Your task to perform on an android device: turn off smart reply in the gmail app Image 0: 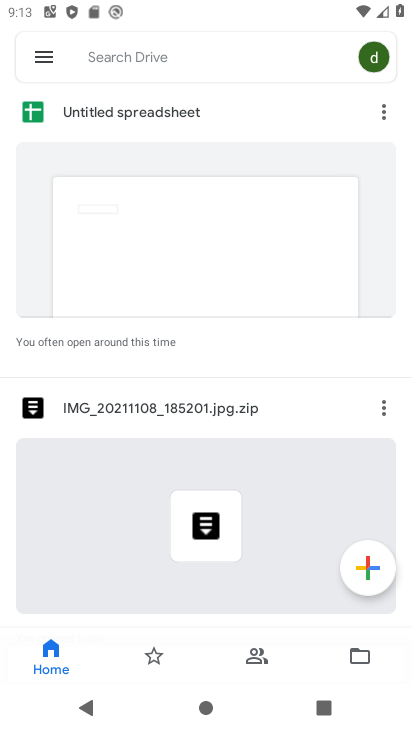
Step 0: press home button
Your task to perform on an android device: turn off smart reply in the gmail app Image 1: 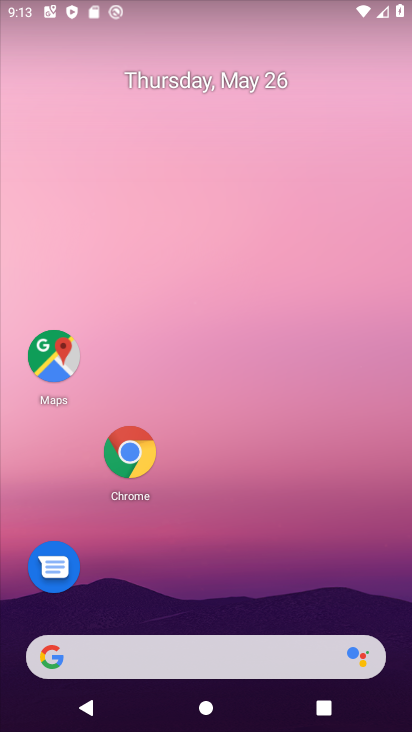
Step 1: drag from (176, 654) to (303, 175)
Your task to perform on an android device: turn off smart reply in the gmail app Image 2: 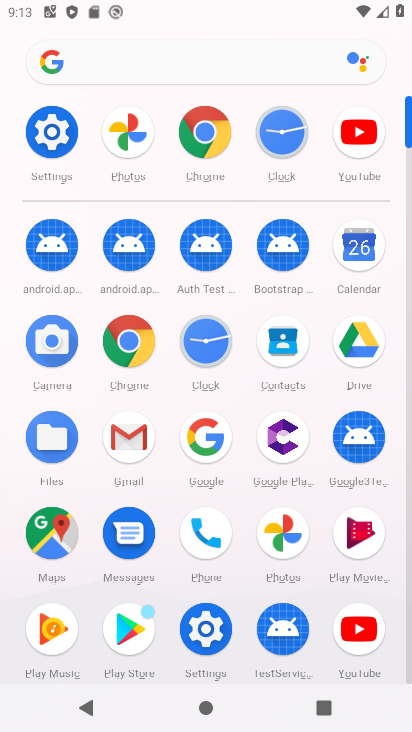
Step 2: click (128, 443)
Your task to perform on an android device: turn off smart reply in the gmail app Image 3: 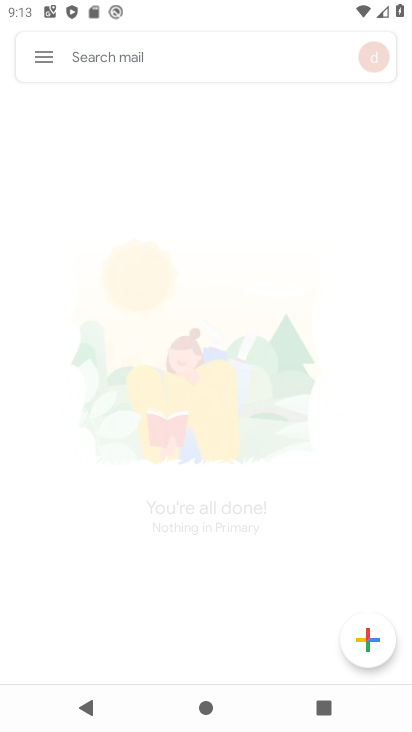
Step 3: click (39, 59)
Your task to perform on an android device: turn off smart reply in the gmail app Image 4: 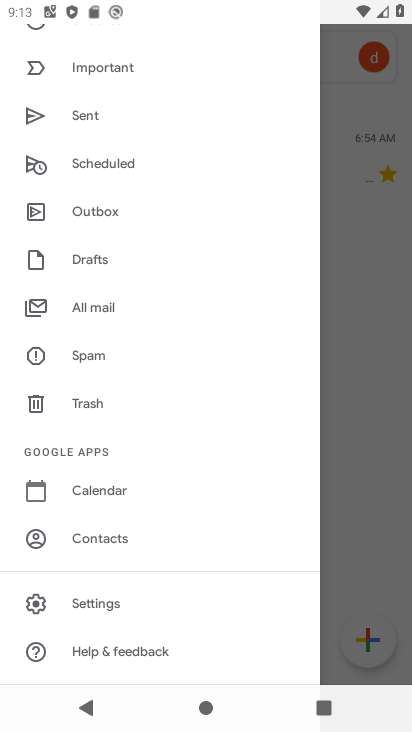
Step 4: click (108, 598)
Your task to perform on an android device: turn off smart reply in the gmail app Image 5: 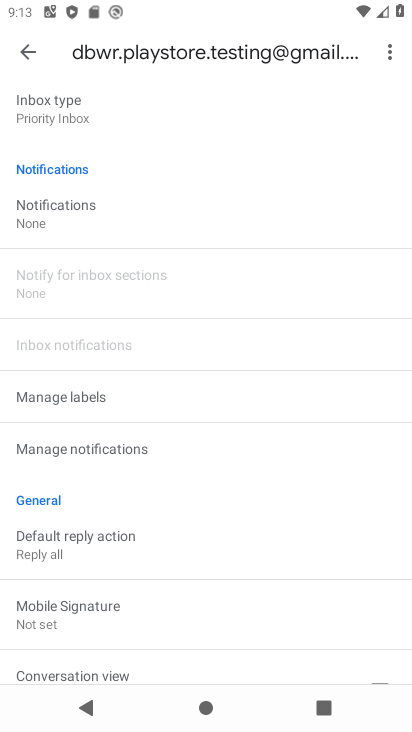
Step 5: drag from (203, 599) to (328, 139)
Your task to perform on an android device: turn off smart reply in the gmail app Image 6: 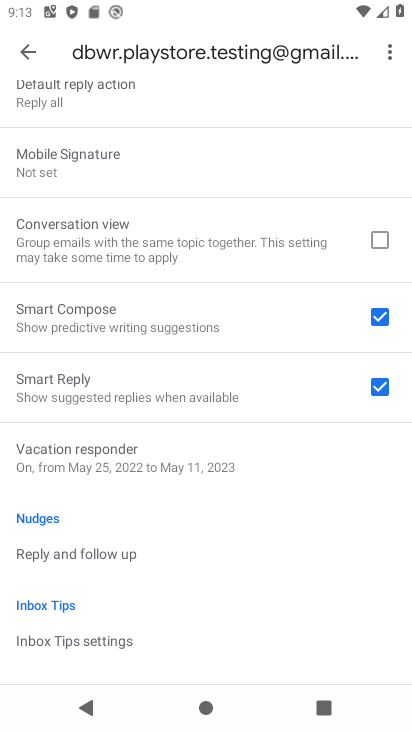
Step 6: click (378, 381)
Your task to perform on an android device: turn off smart reply in the gmail app Image 7: 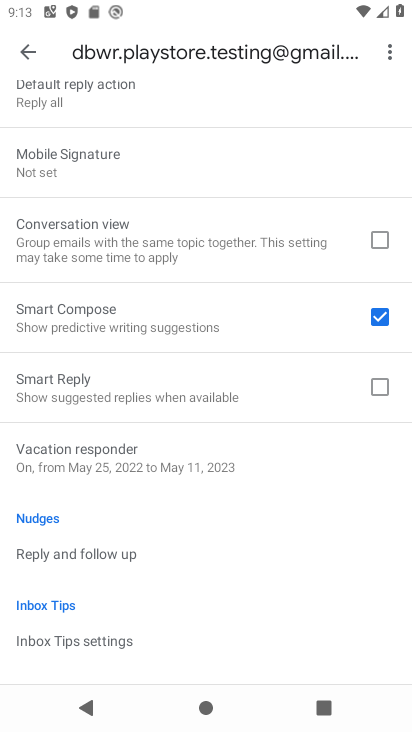
Step 7: task complete